Your task to perform on an android device: change the clock style Image 0: 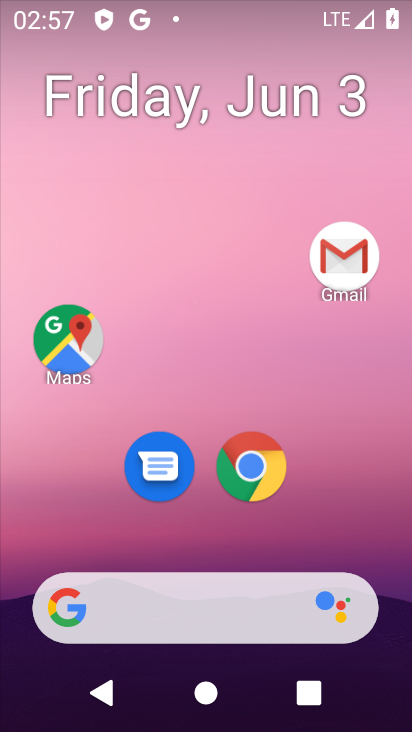
Step 0: drag from (206, 556) to (170, 224)
Your task to perform on an android device: change the clock style Image 1: 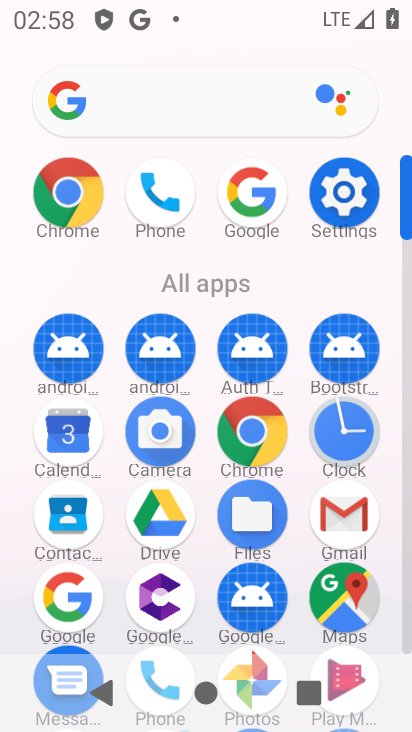
Step 1: click (328, 448)
Your task to perform on an android device: change the clock style Image 2: 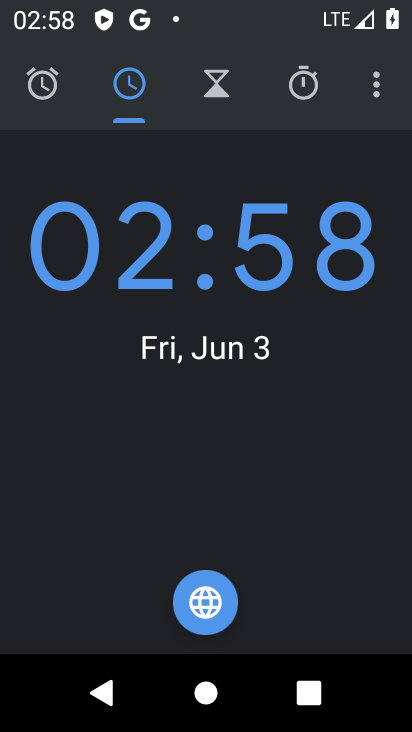
Step 2: click (377, 90)
Your task to perform on an android device: change the clock style Image 3: 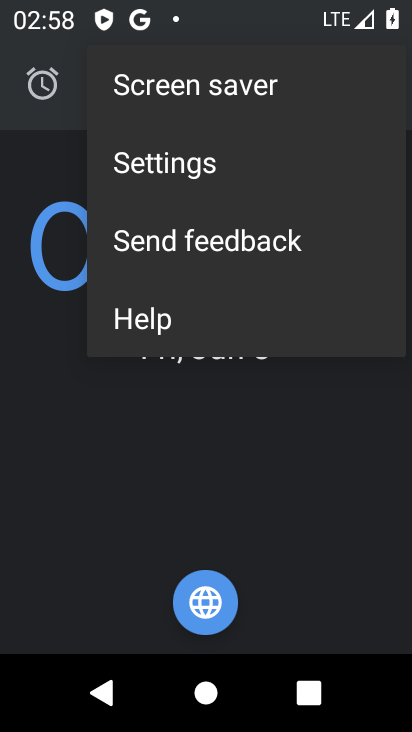
Step 3: click (177, 163)
Your task to perform on an android device: change the clock style Image 4: 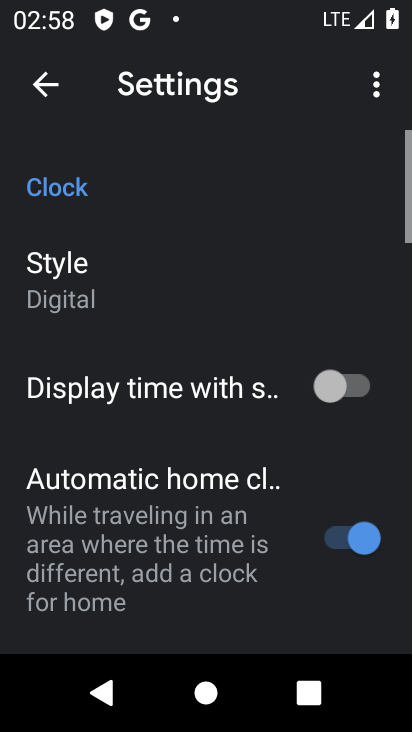
Step 4: click (66, 277)
Your task to perform on an android device: change the clock style Image 5: 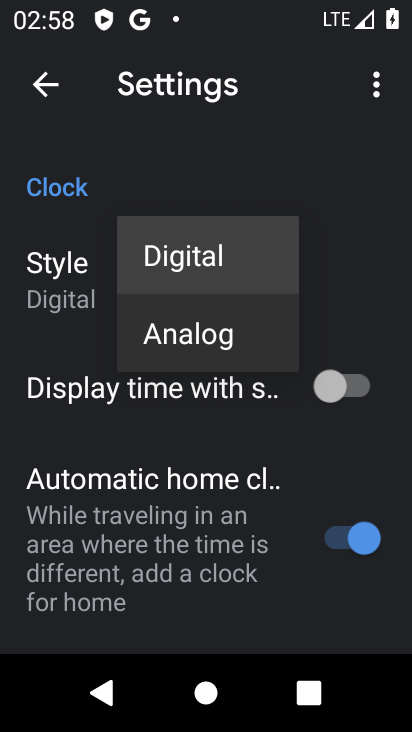
Step 5: click (161, 333)
Your task to perform on an android device: change the clock style Image 6: 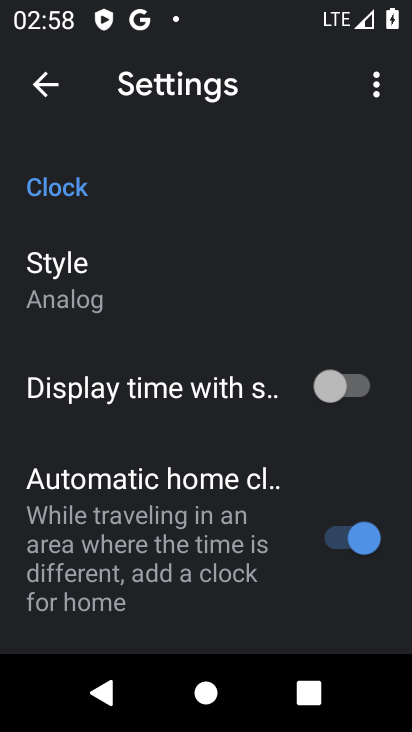
Step 6: task complete